Your task to perform on an android device: Open eBay Image 0: 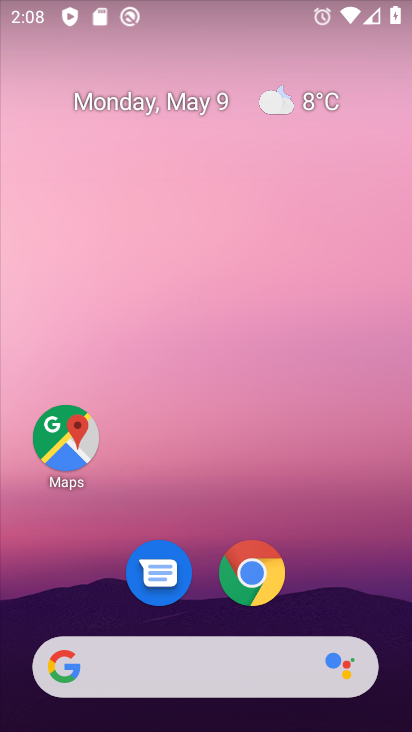
Step 0: drag from (179, 677) to (273, 159)
Your task to perform on an android device: Open eBay Image 1: 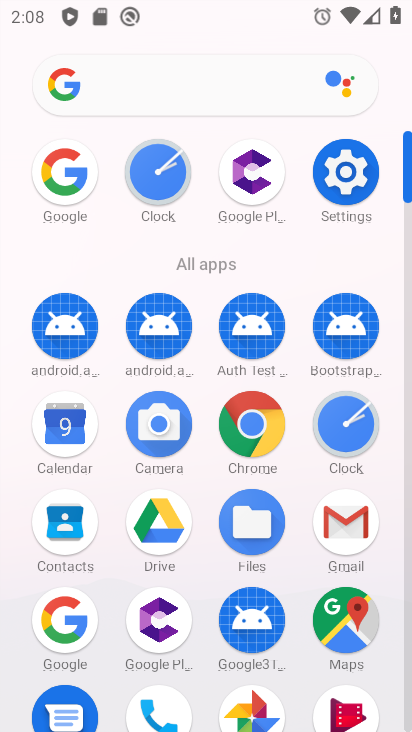
Step 1: click (244, 435)
Your task to perform on an android device: Open eBay Image 2: 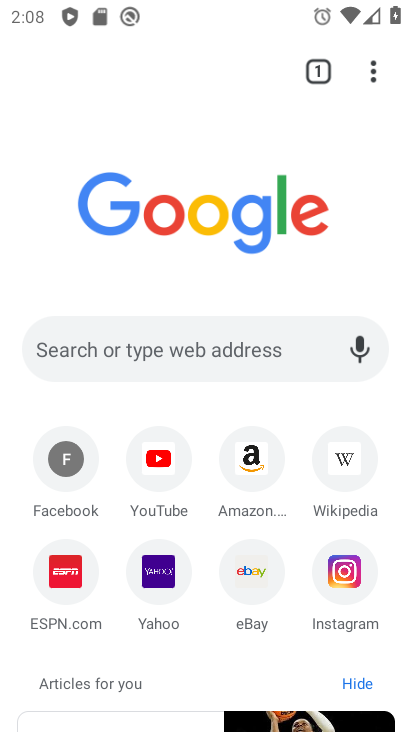
Step 2: click (256, 585)
Your task to perform on an android device: Open eBay Image 3: 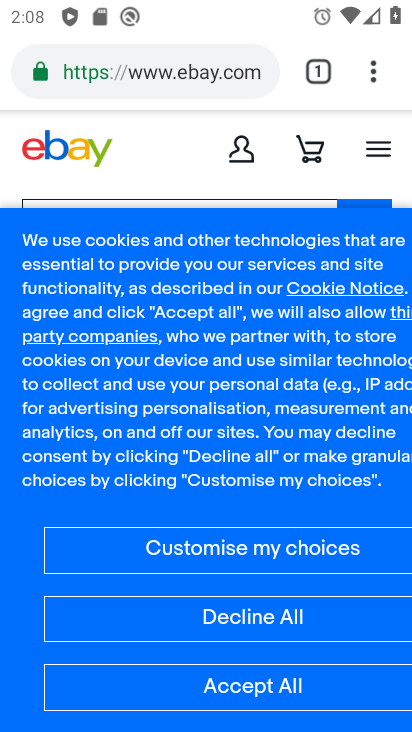
Step 3: task complete